Your task to perform on an android device: Go to display settings Image 0: 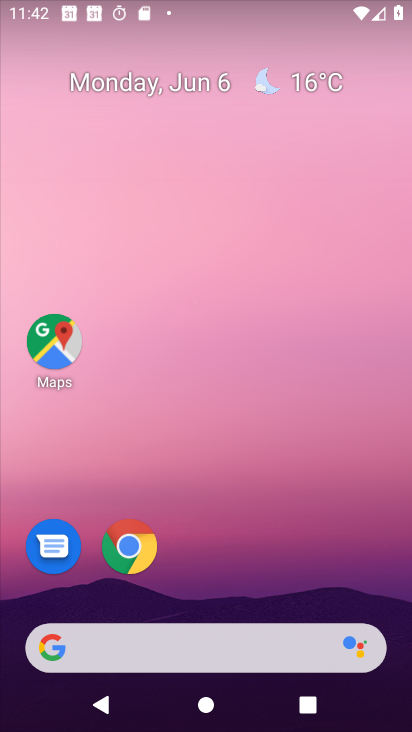
Step 0: click (289, 10)
Your task to perform on an android device: Go to display settings Image 1: 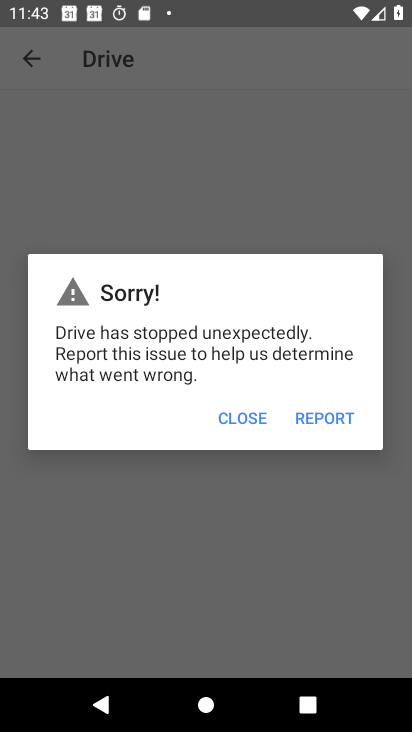
Step 1: press home button
Your task to perform on an android device: Go to display settings Image 2: 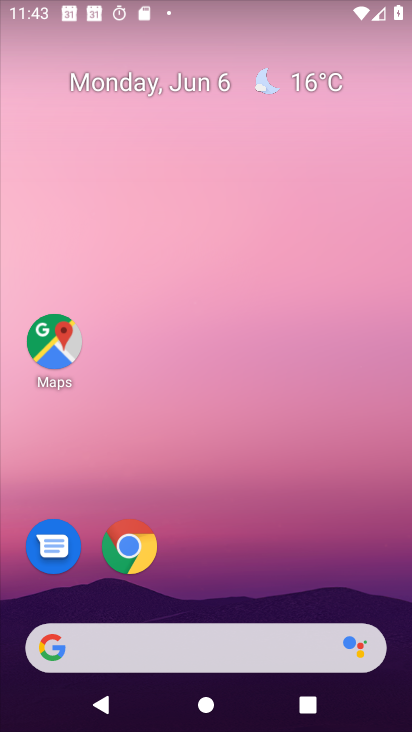
Step 2: drag from (211, 590) to (348, 3)
Your task to perform on an android device: Go to display settings Image 3: 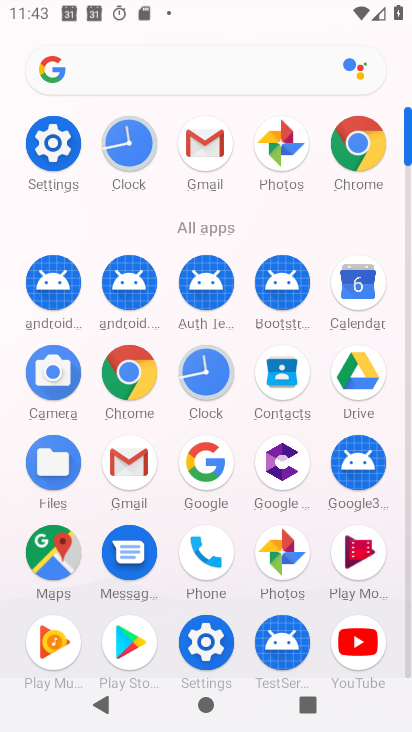
Step 3: click (211, 652)
Your task to perform on an android device: Go to display settings Image 4: 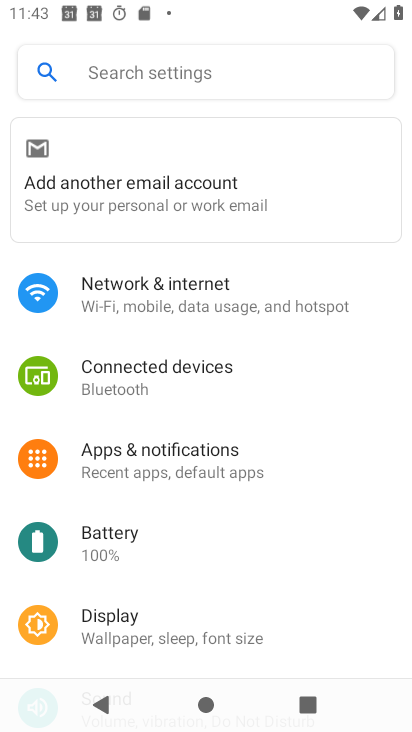
Step 4: click (145, 627)
Your task to perform on an android device: Go to display settings Image 5: 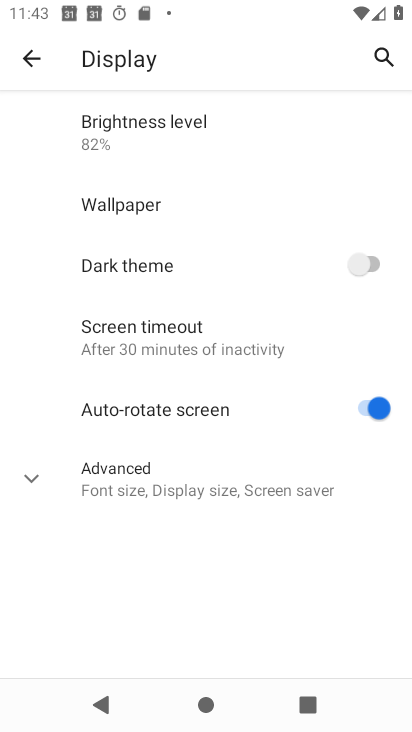
Step 5: task complete